Your task to perform on an android device: Clear all items from cart on costco.com. Image 0: 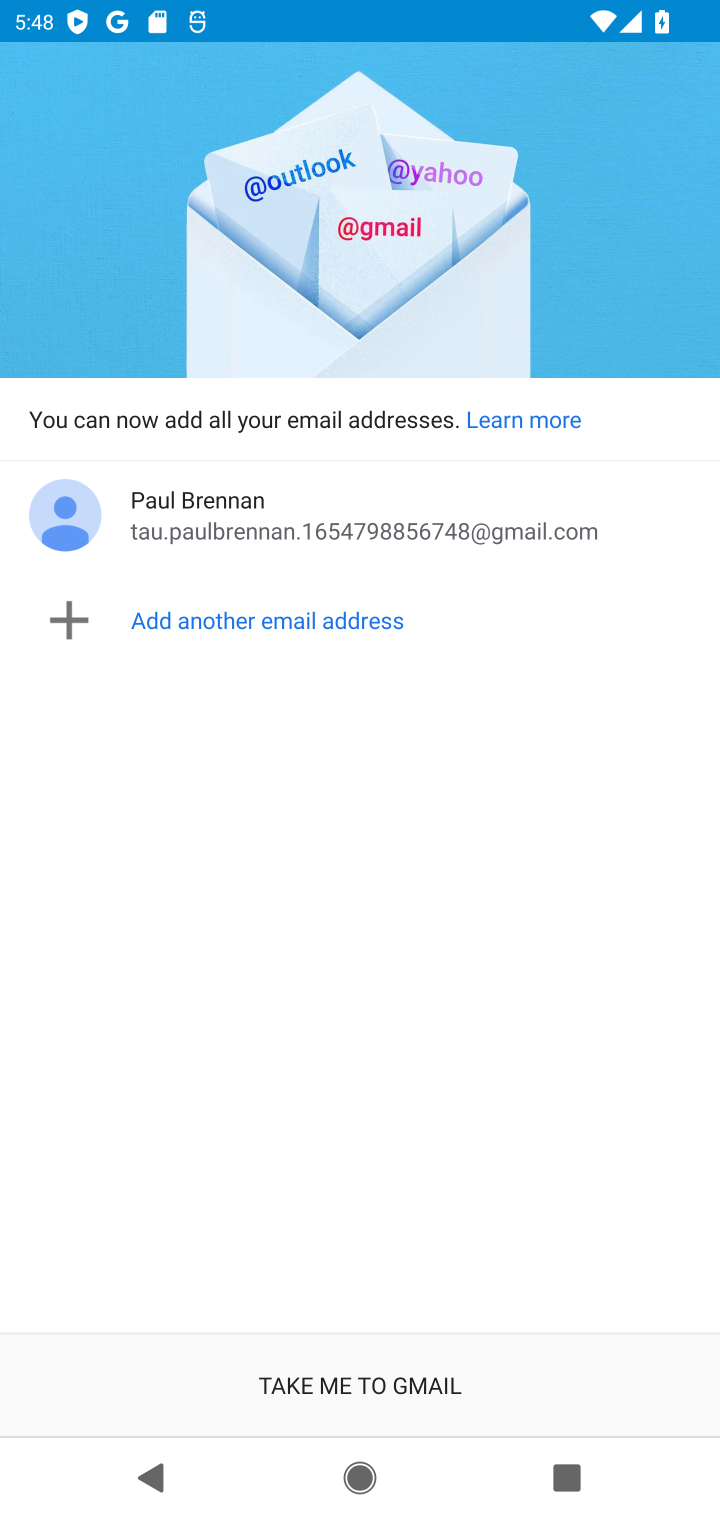
Step 0: click (285, 1390)
Your task to perform on an android device: Clear all items from cart on costco.com. Image 1: 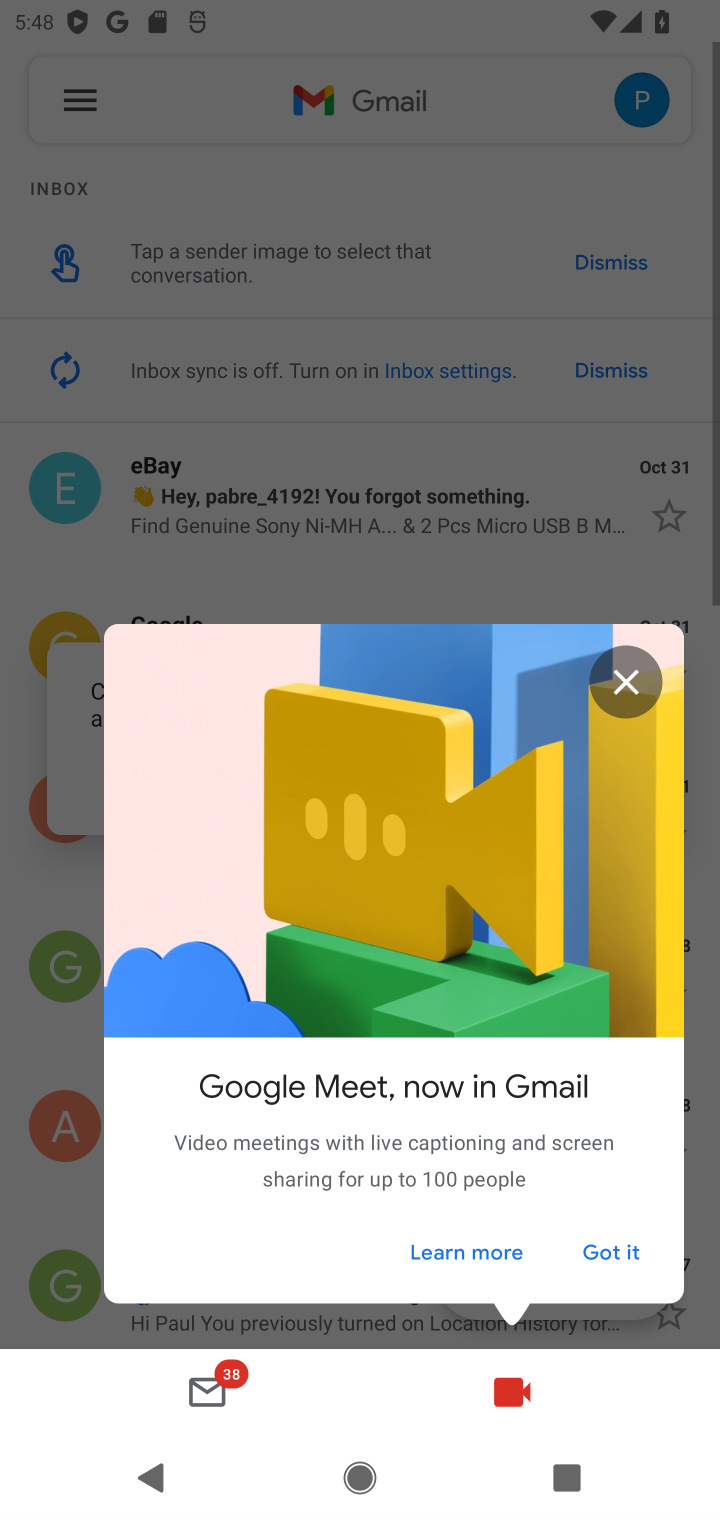
Step 1: click (630, 683)
Your task to perform on an android device: Clear all items from cart on costco.com. Image 2: 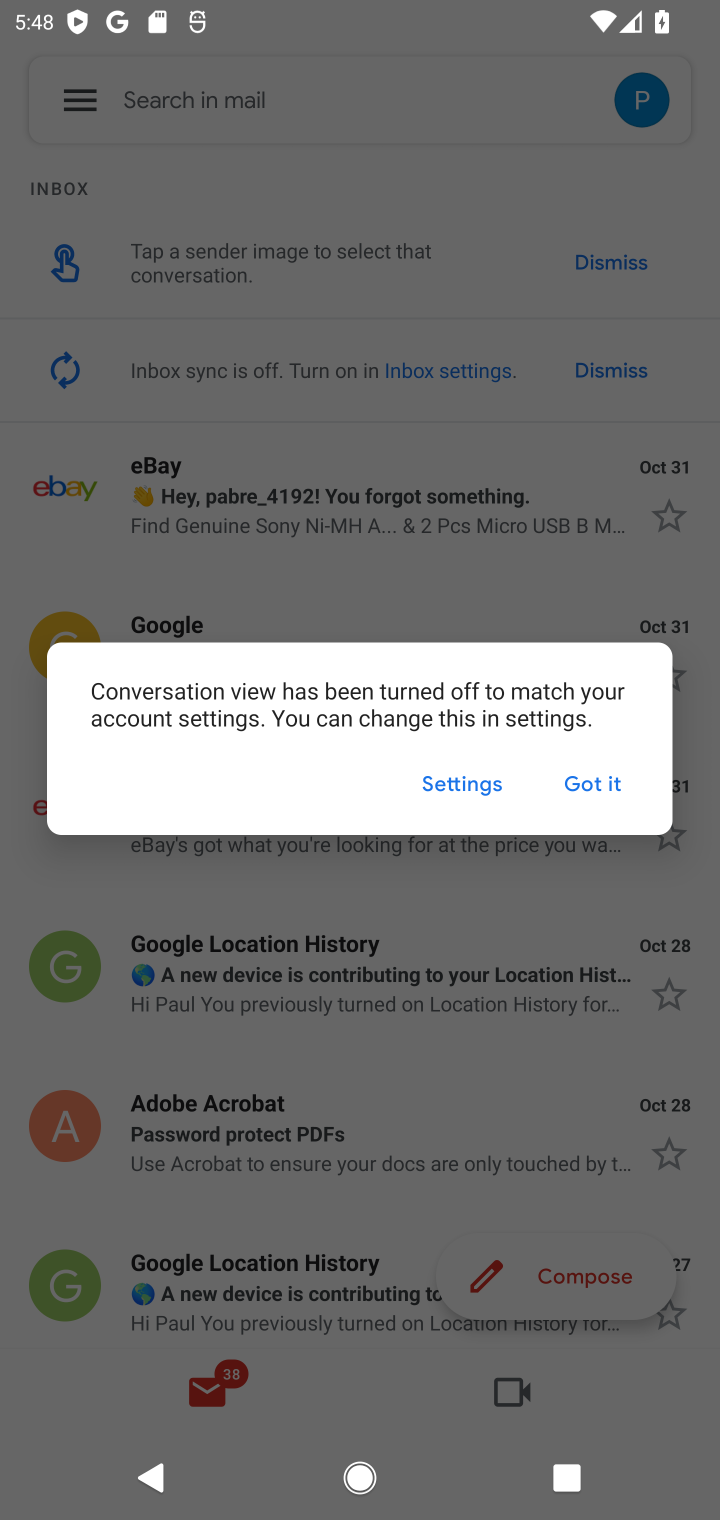
Step 2: click (587, 785)
Your task to perform on an android device: Clear all items from cart on costco.com. Image 3: 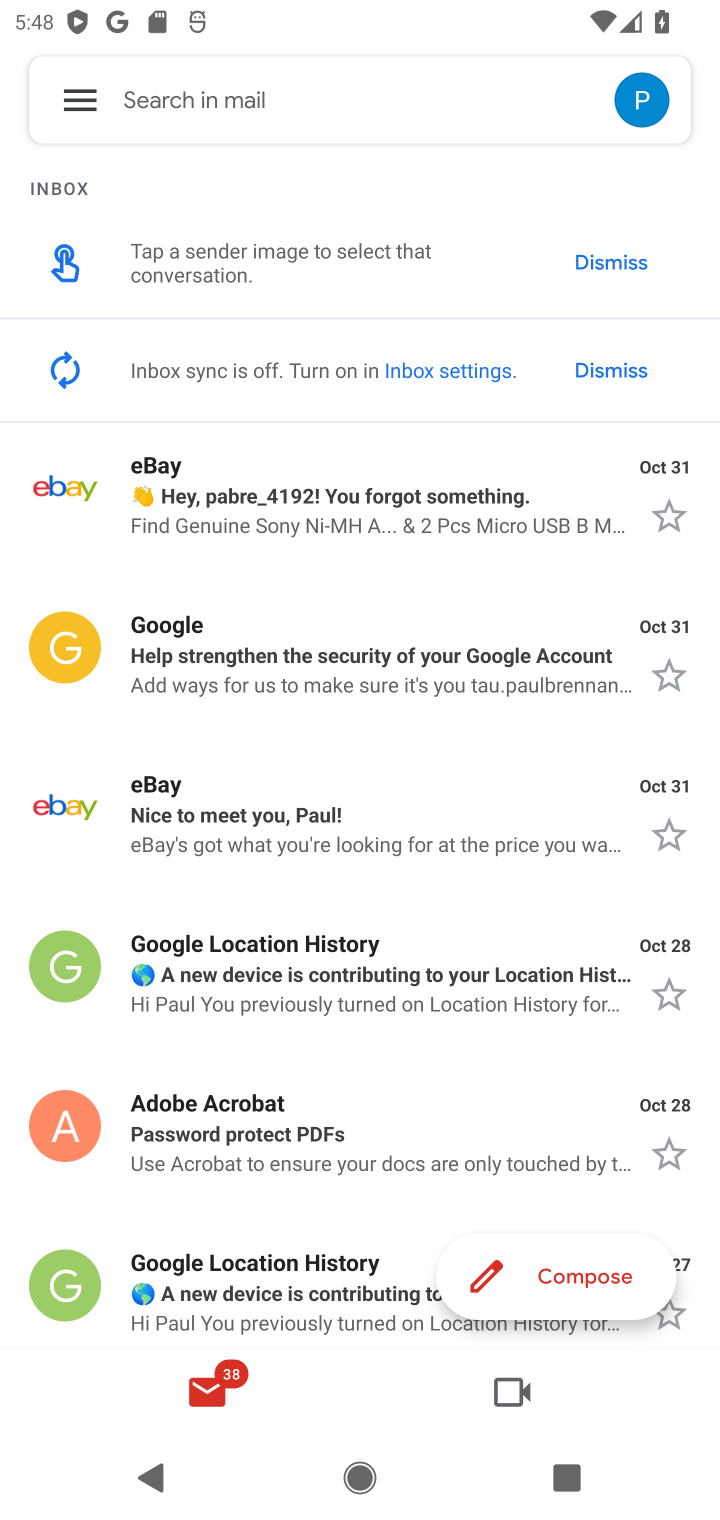
Step 3: press home button
Your task to perform on an android device: Clear all items from cart on costco.com. Image 4: 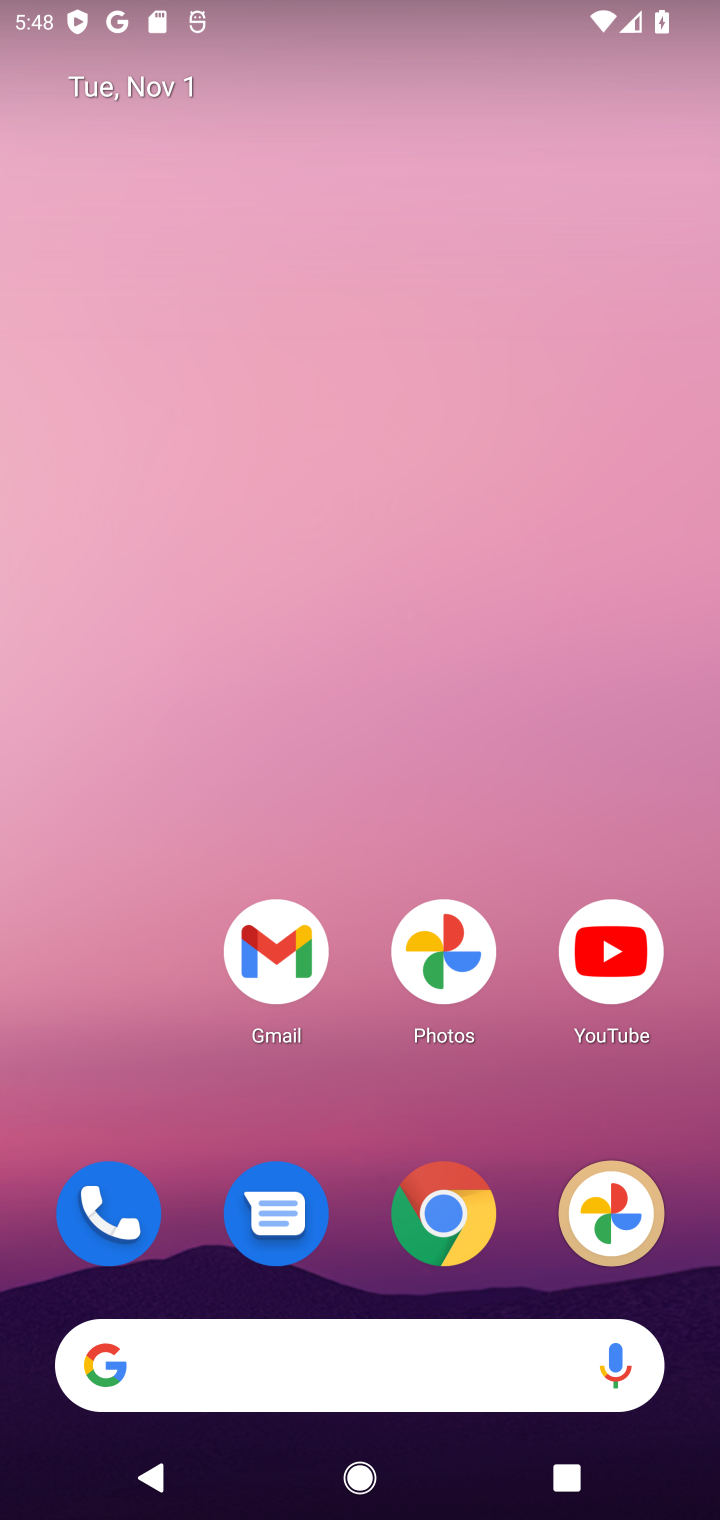
Step 4: click (439, 1231)
Your task to perform on an android device: Clear all items from cart on costco.com. Image 5: 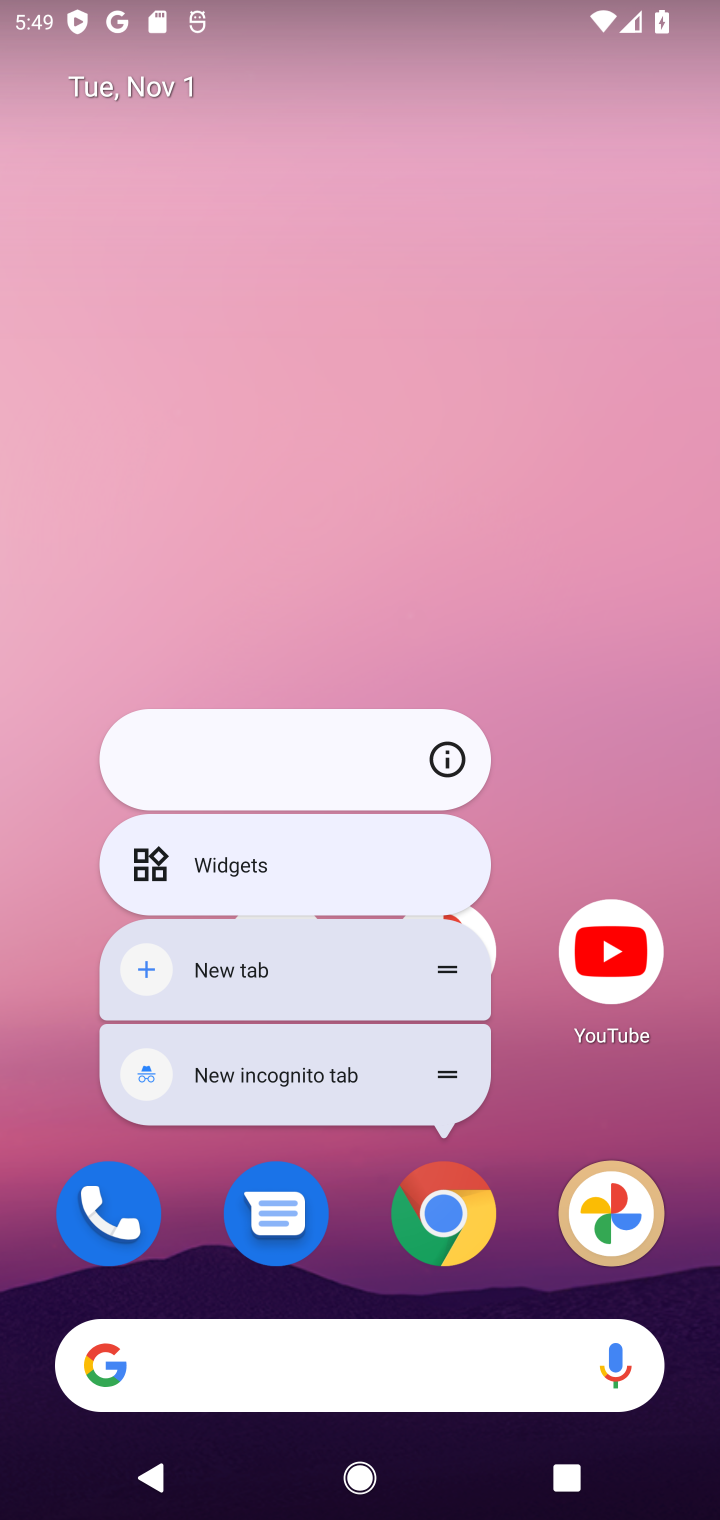
Step 5: click (463, 1241)
Your task to perform on an android device: Clear all items from cart on costco.com. Image 6: 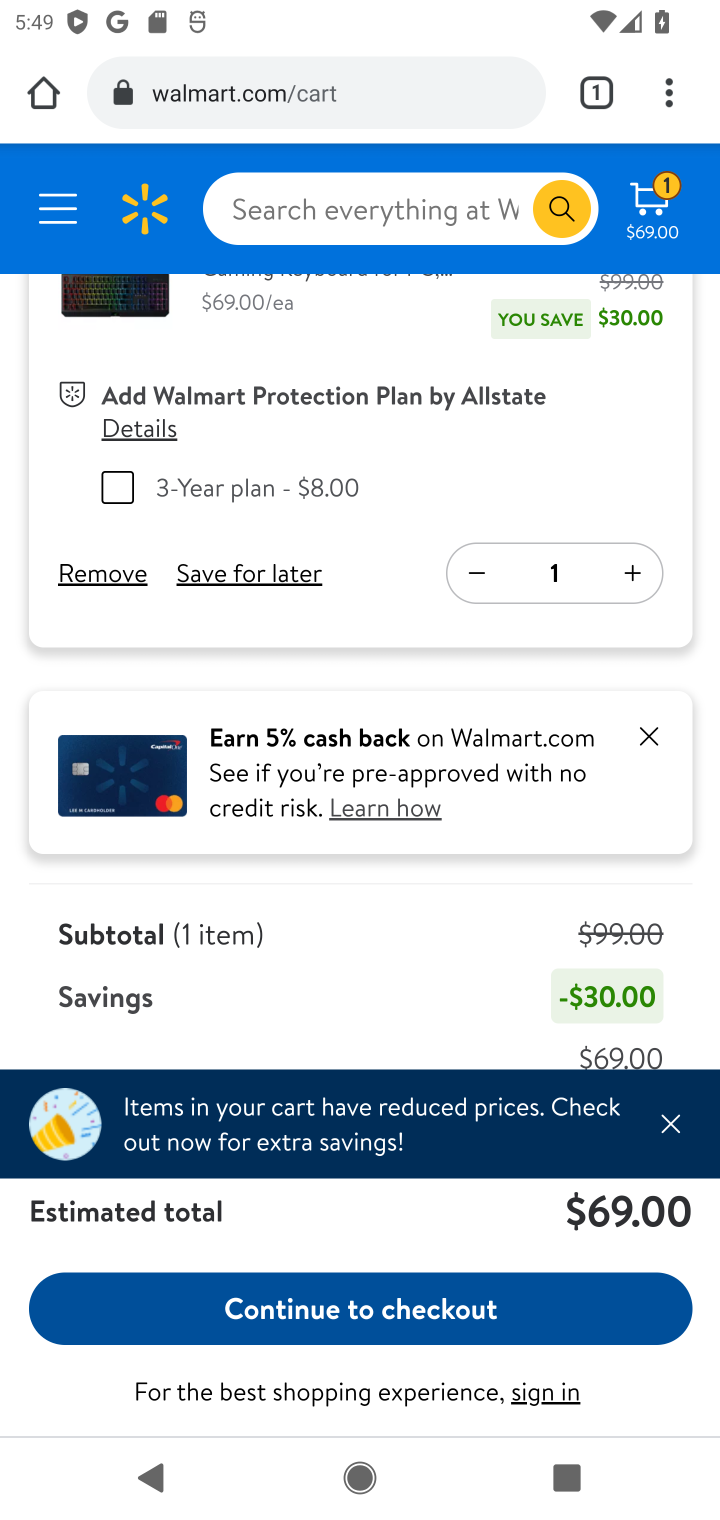
Step 6: click (286, 106)
Your task to perform on an android device: Clear all items from cart on costco.com. Image 7: 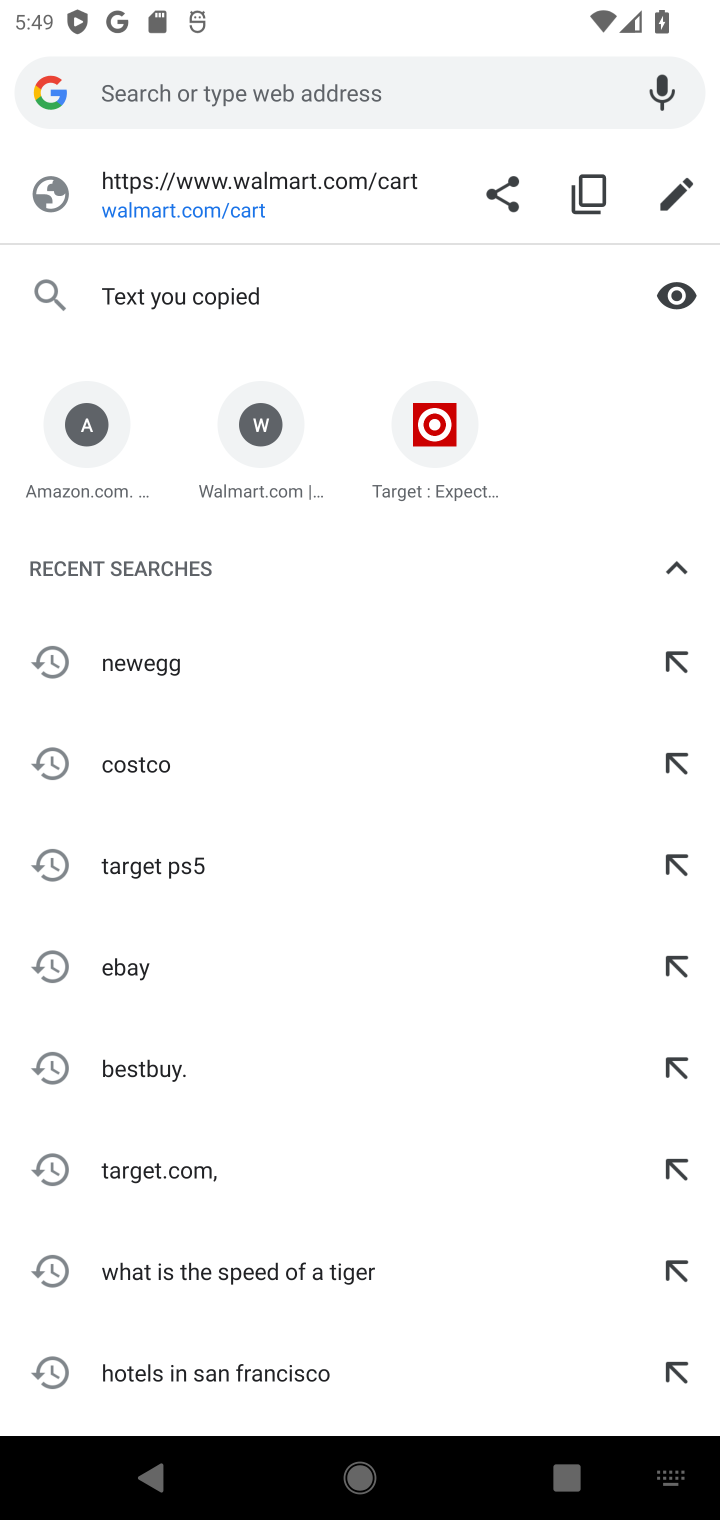
Step 7: type "costco.com"
Your task to perform on an android device: Clear all items from cart on costco.com. Image 8: 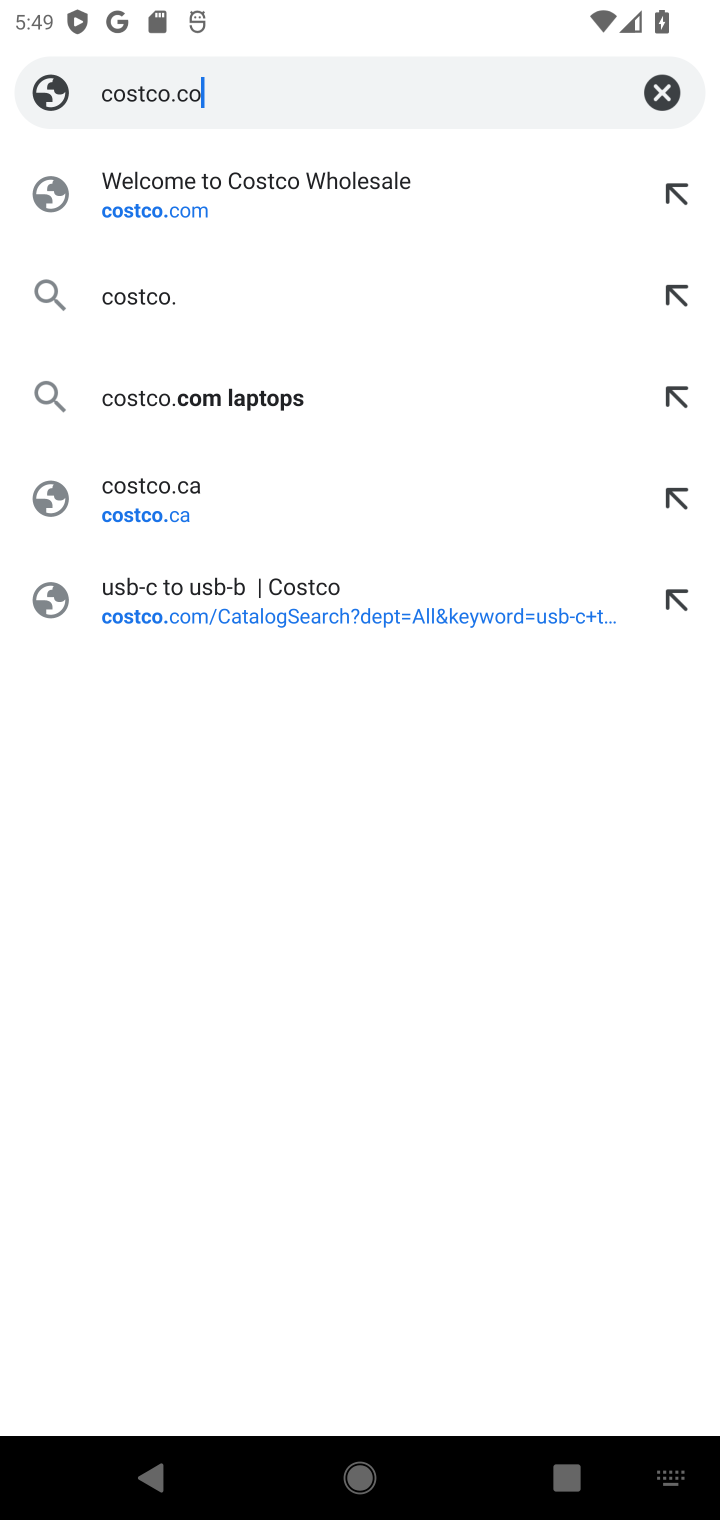
Step 8: type ""
Your task to perform on an android device: Clear all items from cart on costco.com. Image 9: 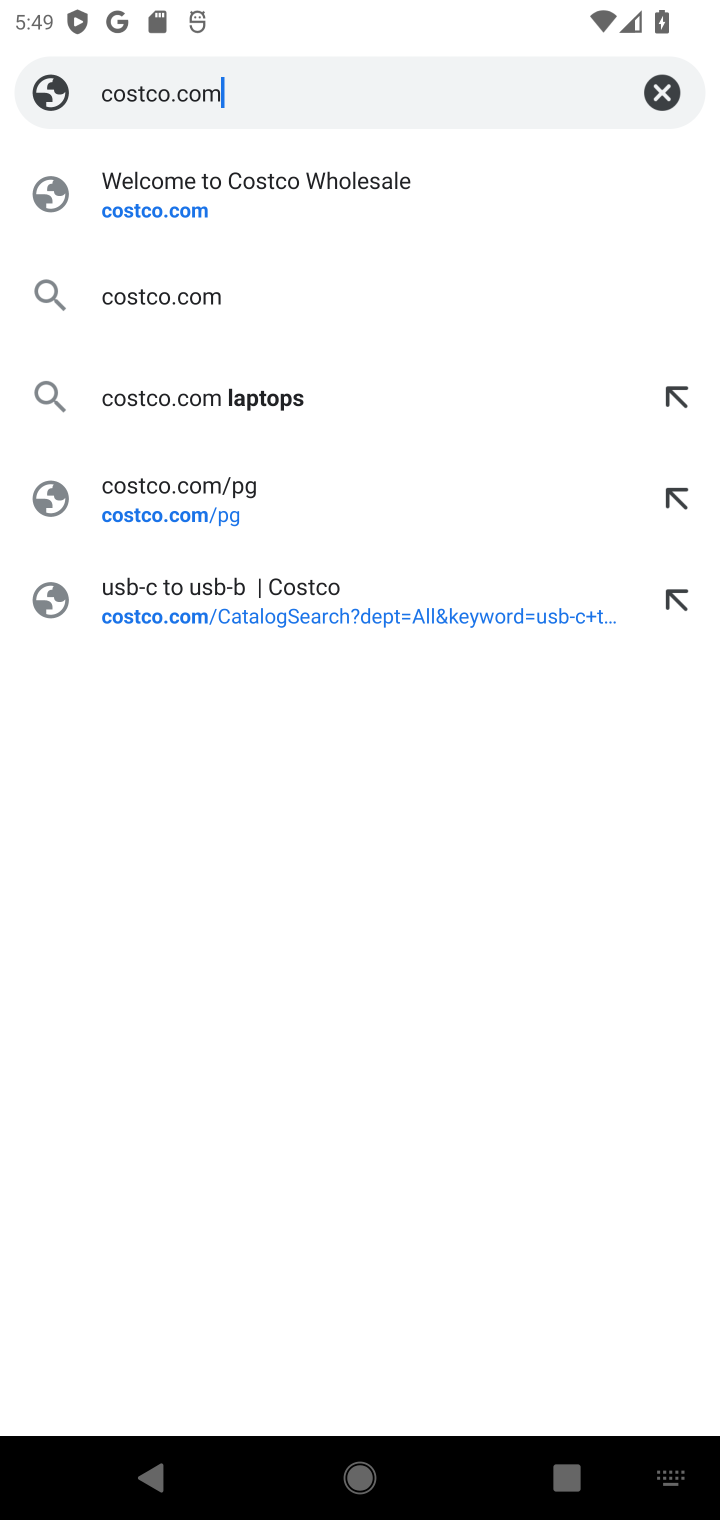
Step 9: click (455, 203)
Your task to perform on an android device: Clear all items from cart on costco.com. Image 10: 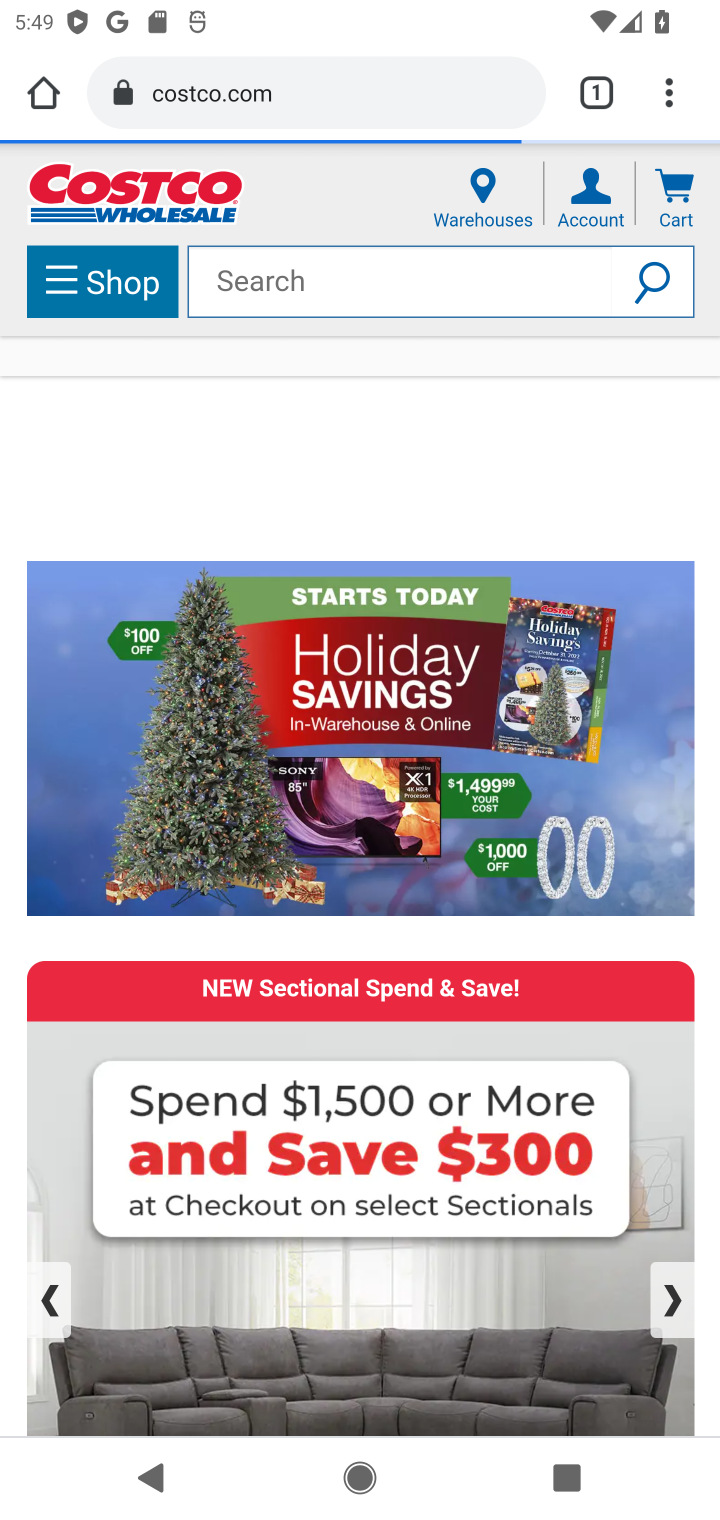
Step 10: click (288, 243)
Your task to perform on an android device: Clear all items from cart on costco.com. Image 11: 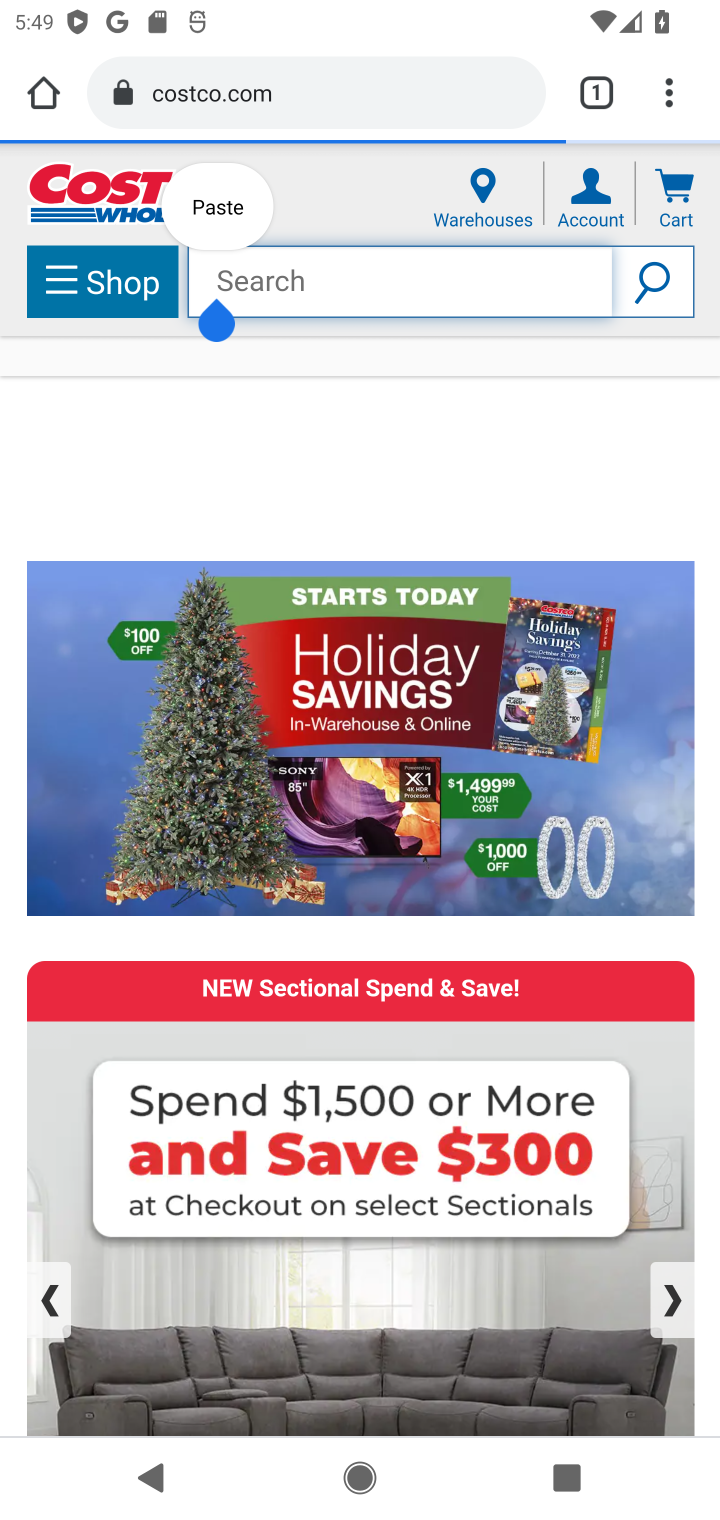
Step 11: click (685, 196)
Your task to perform on an android device: Clear all items from cart on costco.com. Image 12: 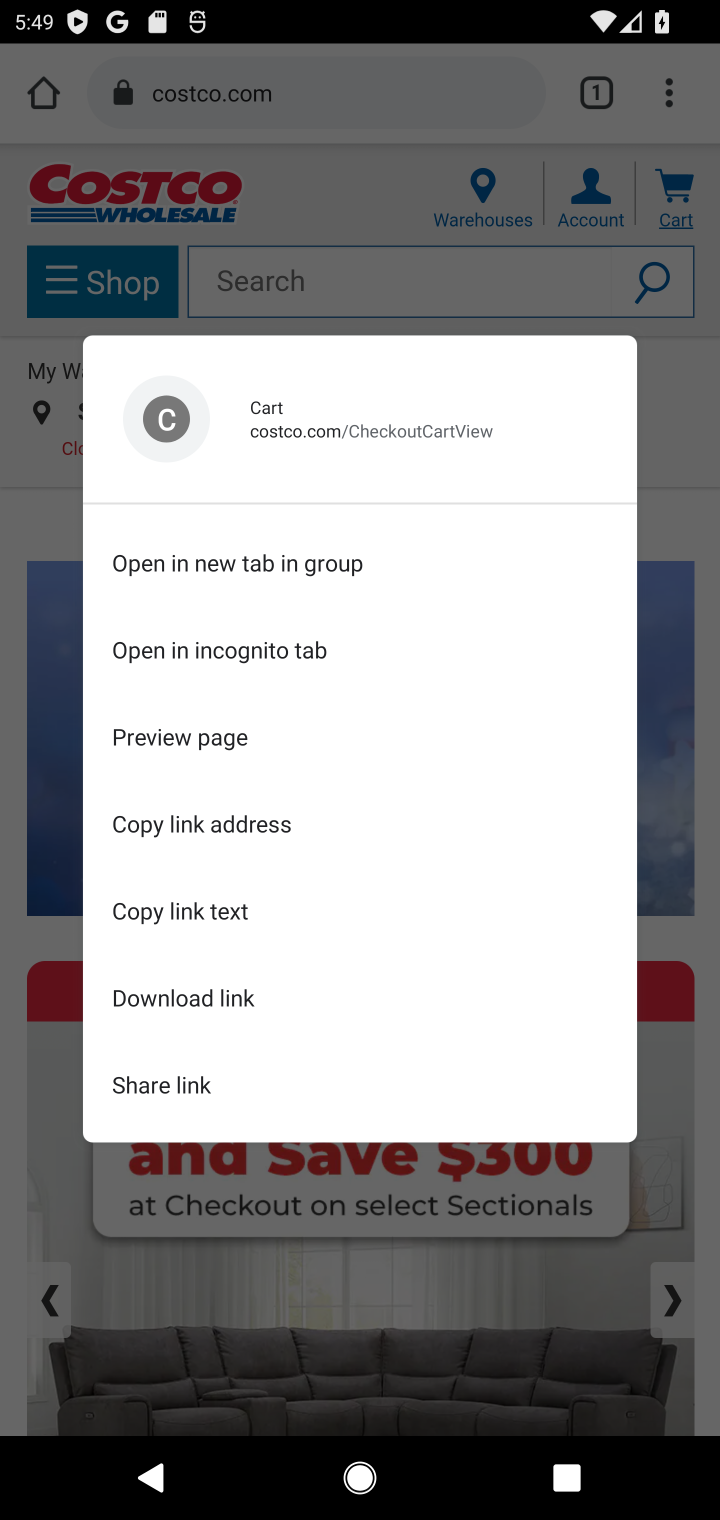
Step 12: click (703, 446)
Your task to perform on an android device: Clear all items from cart on costco.com. Image 13: 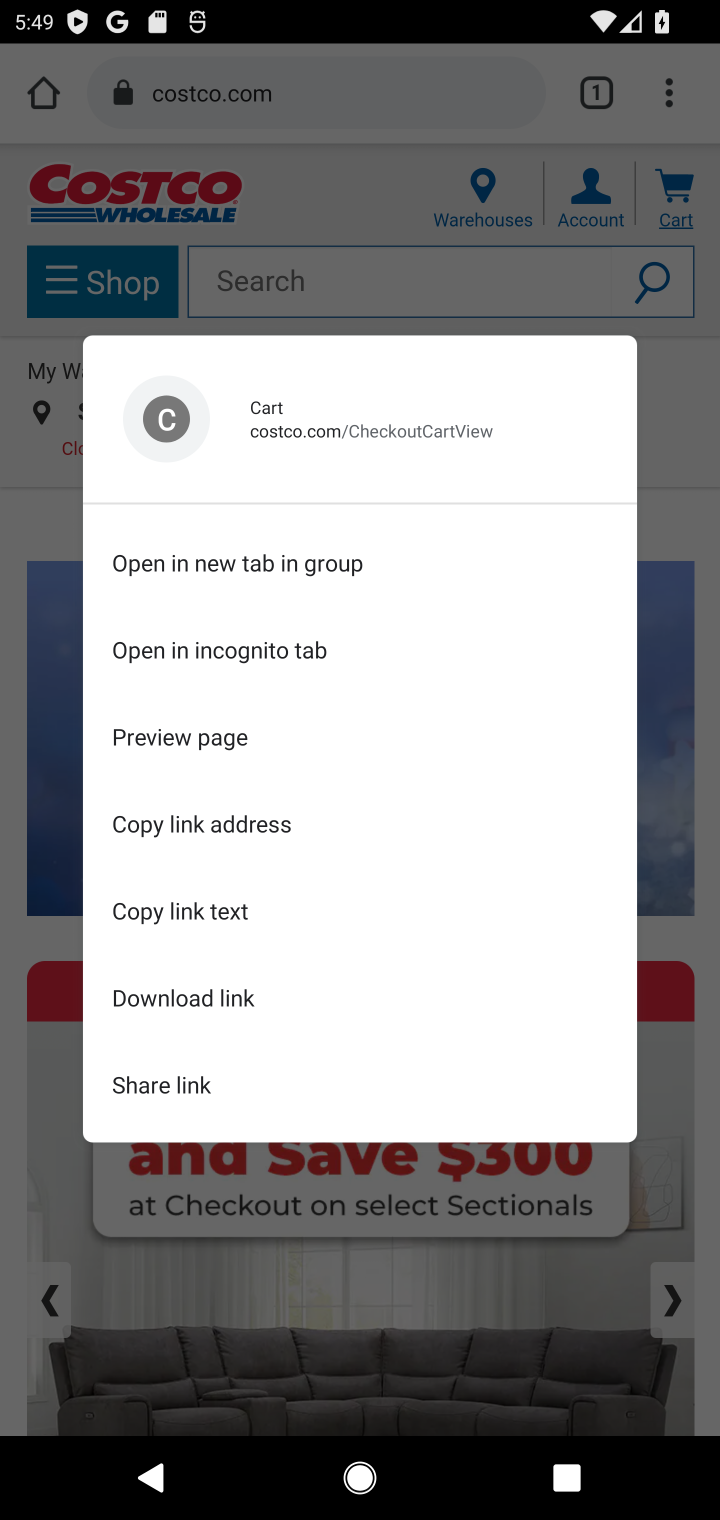
Step 13: click (683, 190)
Your task to perform on an android device: Clear all items from cart on costco.com. Image 14: 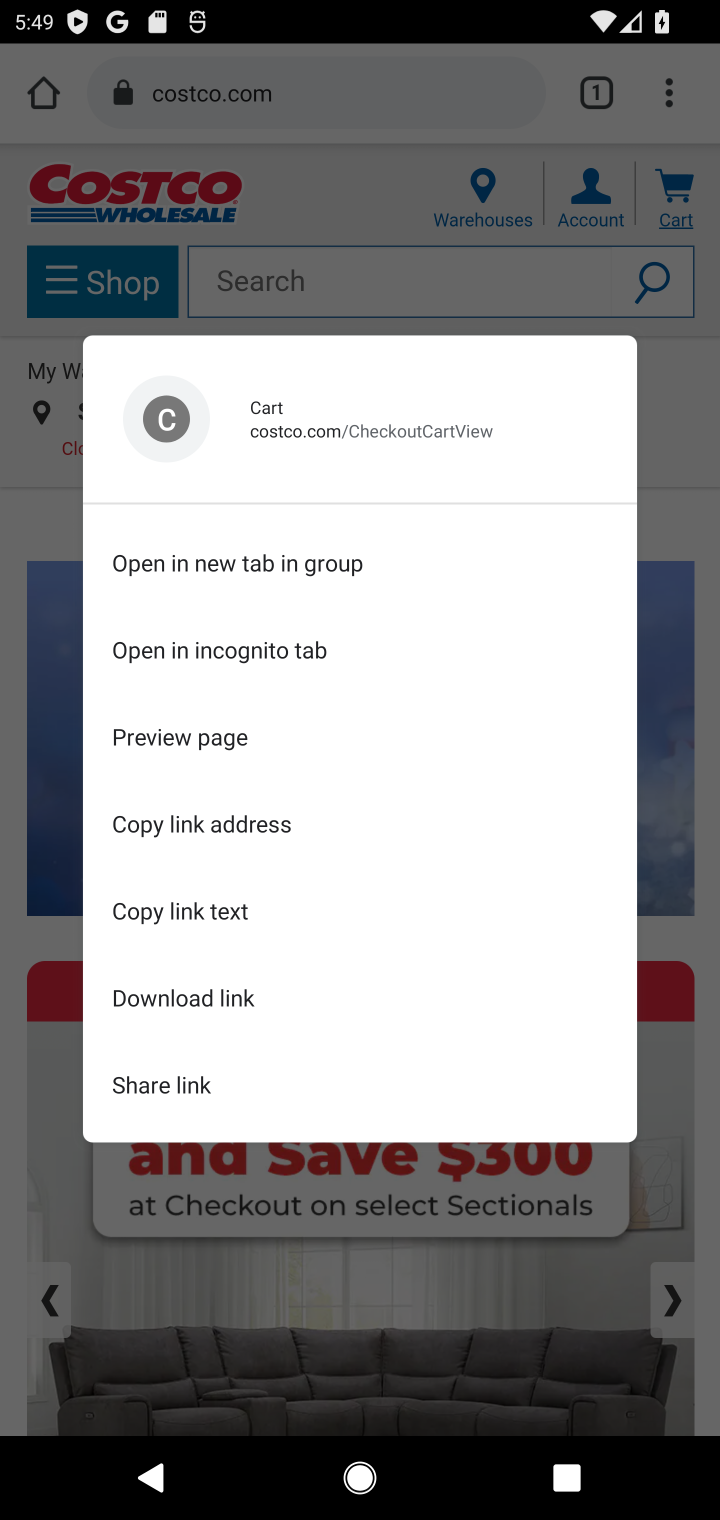
Step 14: click (671, 717)
Your task to perform on an android device: Clear all items from cart on costco.com. Image 15: 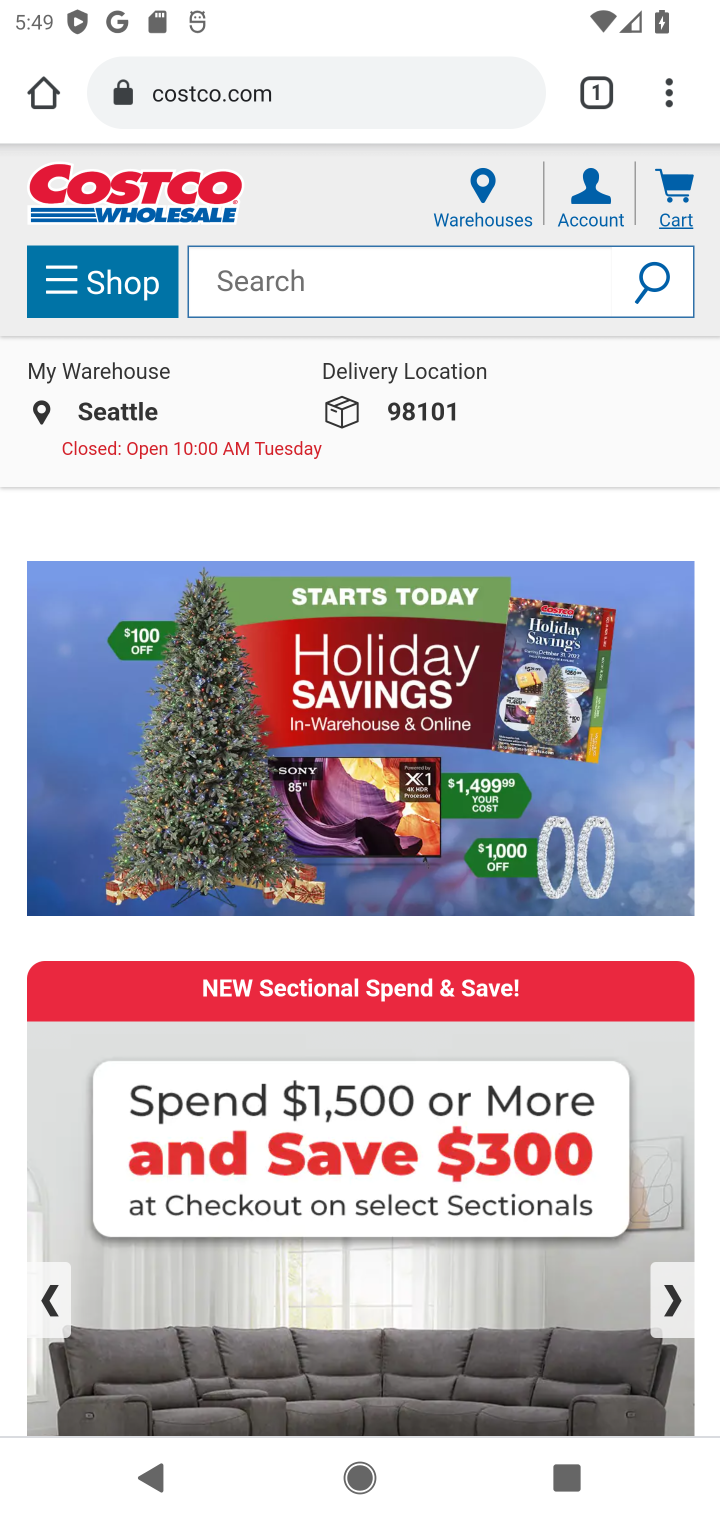
Step 15: click (687, 213)
Your task to perform on an android device: Clear all items from cart on costco.com. Image 16: 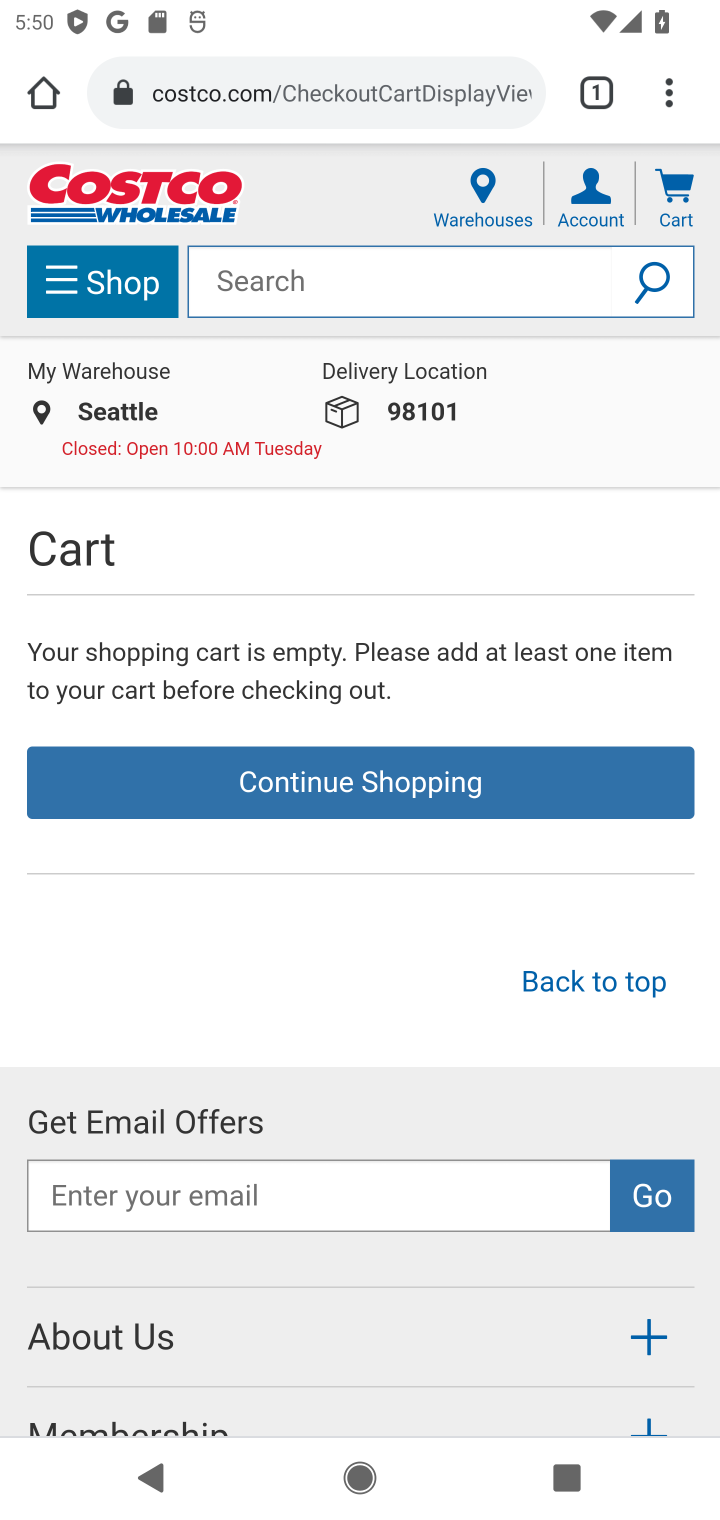
Step 16: task complete